Your task to perform on an android device: turn smart compose on in the gmail app Image 0: 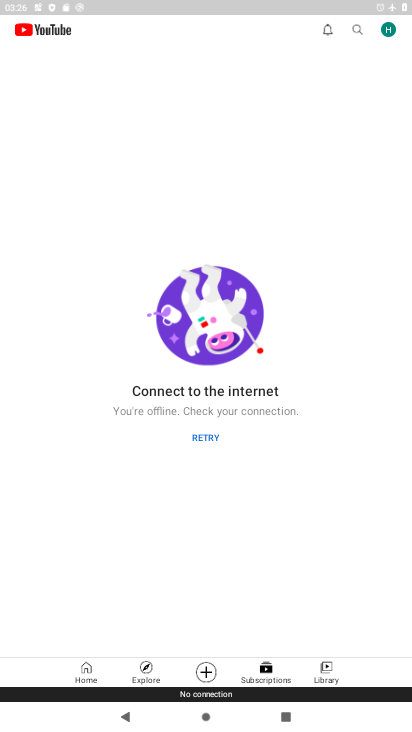
Step 0: press home button
Your task to perform on an android device: turn smart compose on in the gmail app Image 1: 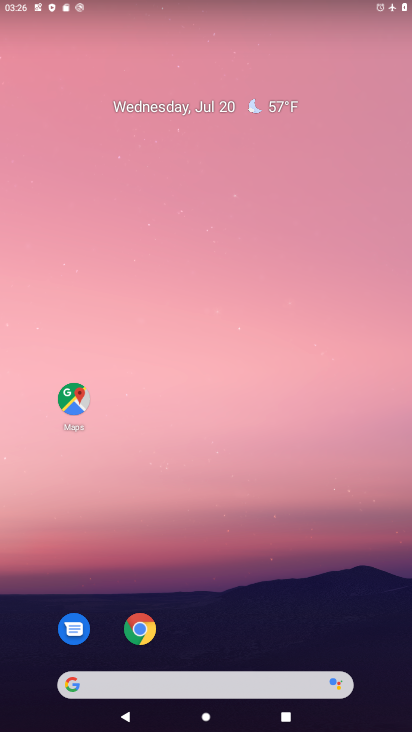
Step 1: drag from (393, 656) to (341, 223)
Your task to perform on an android device: turn smart compose on in the gmail app Image 2: 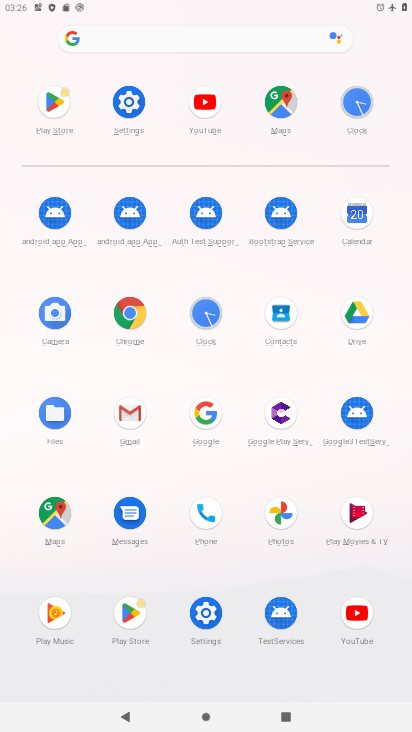
Step 2: click (128, 415)
Your task to perform on an android device: turn smart compose on in the gmail app Image 3: 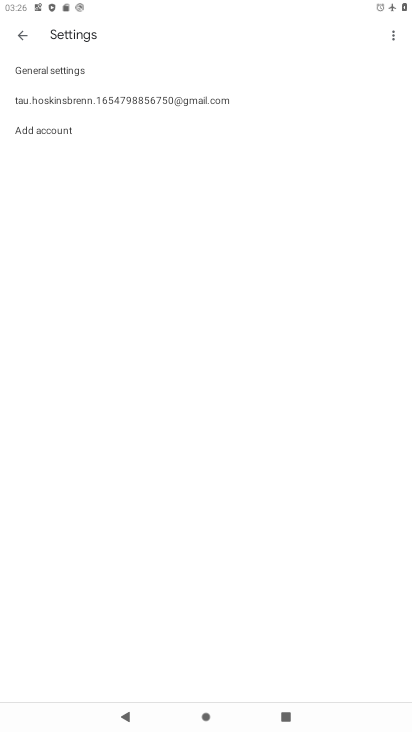
Step 3: click (104, 100)
Your task to perform on an android device: turn smart compose on in the gmail app Image 4: 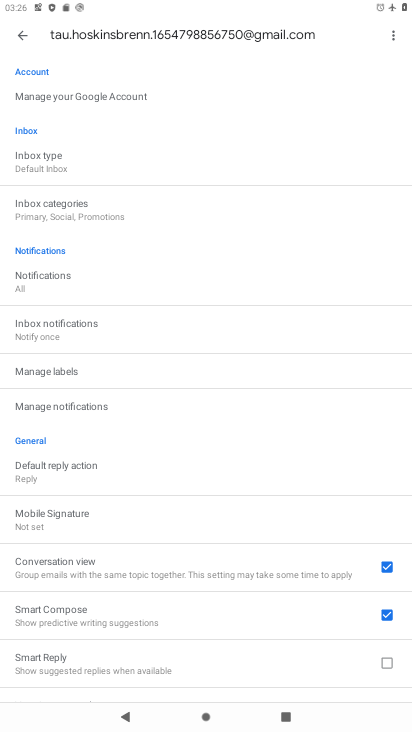
Step 4: task complete